Your task to perform on an android device: Open the web browser Image 0: 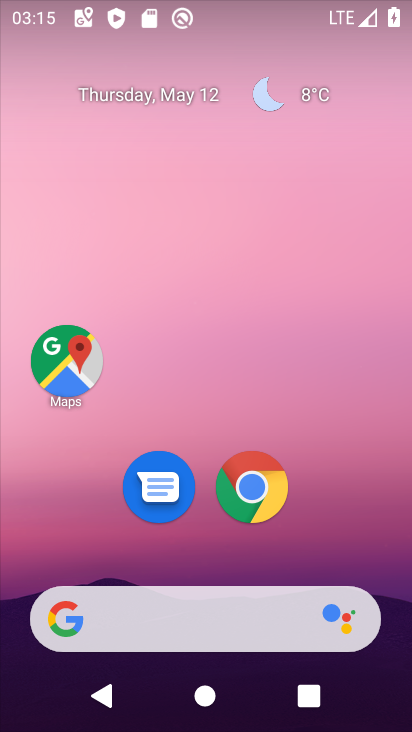
Step 0: click (252, 484)
Your task to perform on an android device: Open the web browser Image 1: 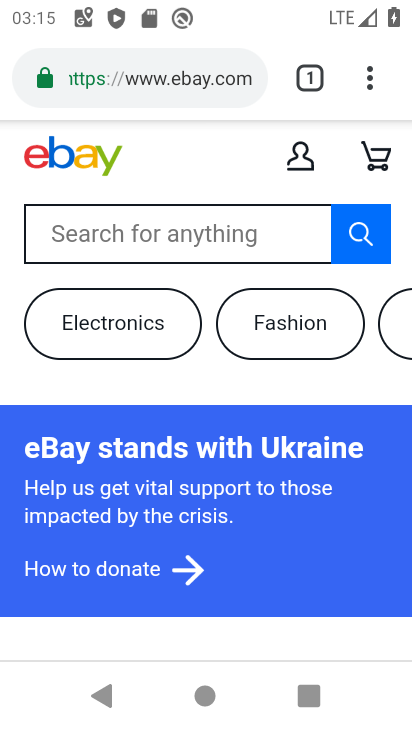
Step 1: task complete